Your task to perform on an android device: Open wifi settings Image 0: 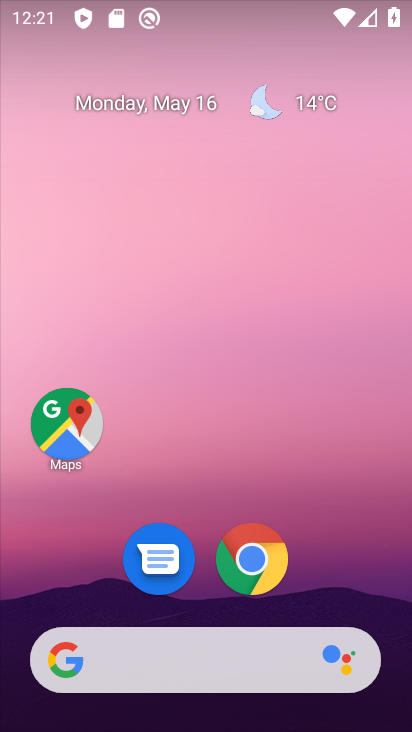
Step 0: drag from (394, 533) to (296, 108)
Your task to perform on an android device: Open wifi settings Image 1: 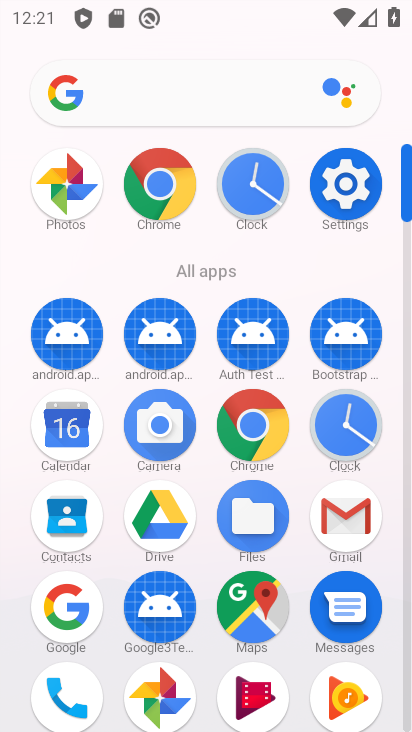
Step 1: click (369, 180)
Your task to perform on an android device: Open wifi settings Image 2: 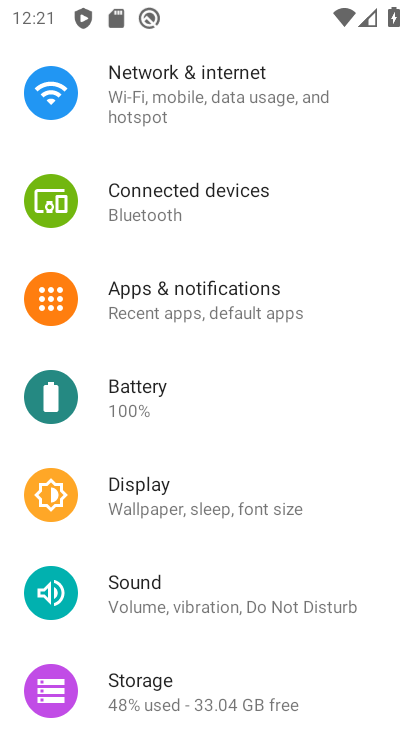
Step 2: drag from (306, 149) to (261, 608)
Your task to perform on an android device: Open wifi settings Image 3: 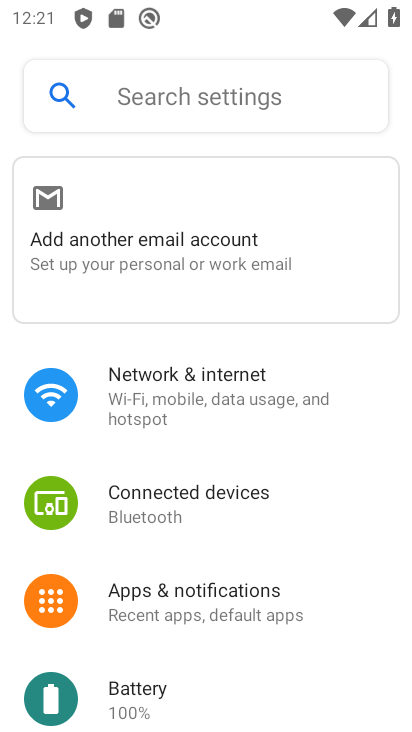
Step 3: click (267, 371)
Your task to perform on an android device: Open wifi settings Image 4: 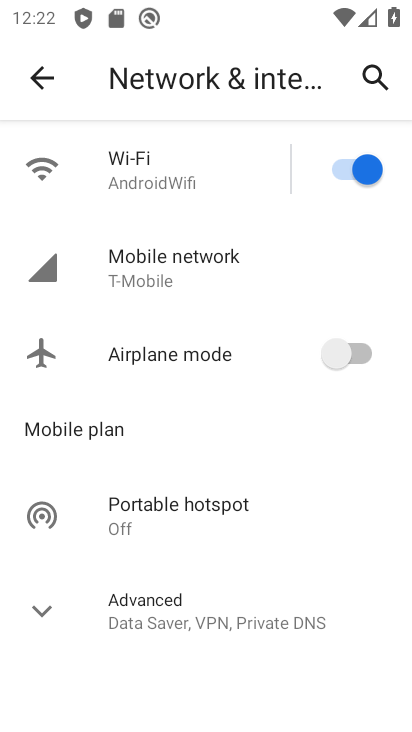
Step 4: click (197, 167)
Your task to perform on an android device: Open wifi settings Image 5: 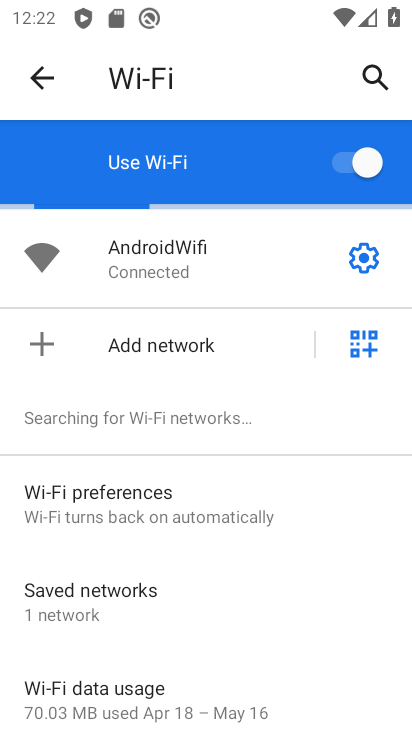
Step 5: task complete